Your task to perform on an android device: show emergency info Image 0: 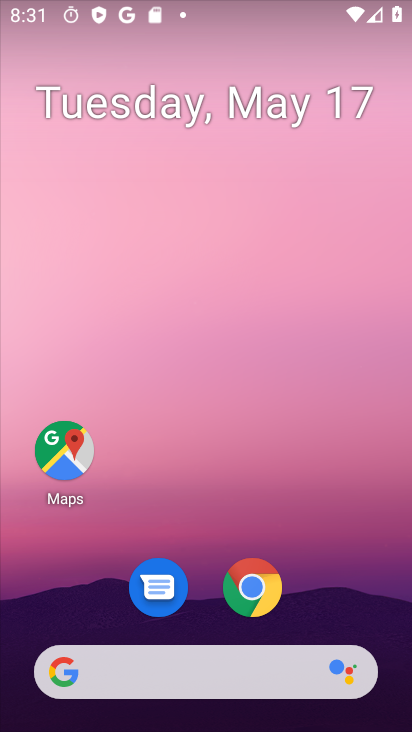
Step 0: drag from (301, 676) to (190, 42)
Your task to perform on an android device: show emergency info Image 1: 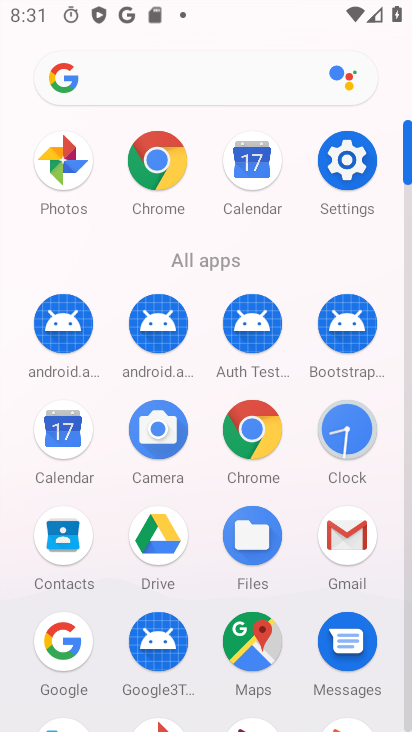
Step 1: click (342, 162)
Your task to perform on an android device: show emergency info Image 2: 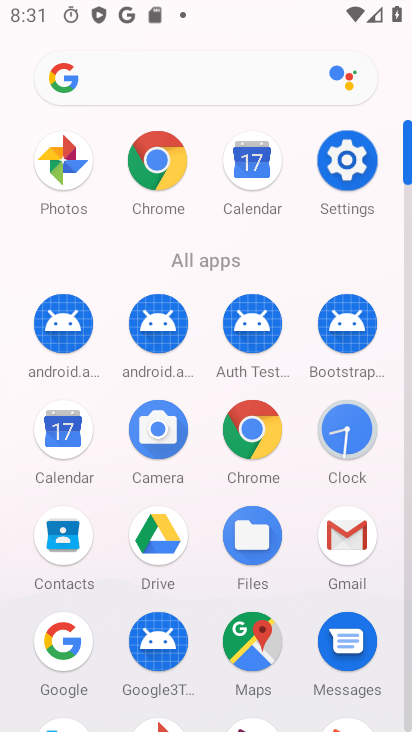
Step 2: click (345, 165)
Your task to perform on an android device: show emergency info Image 3: 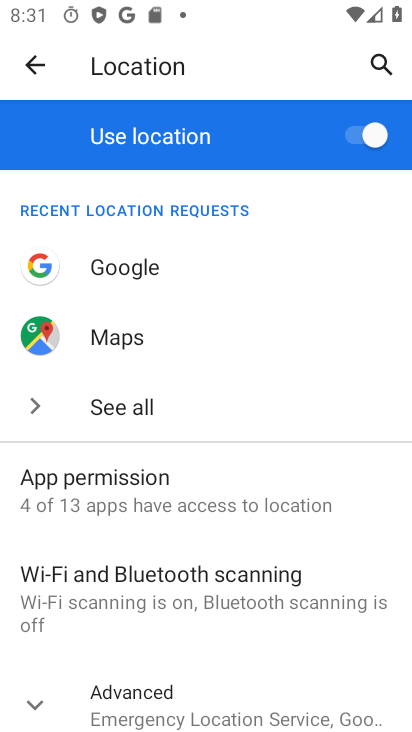
Step 3: click (37, 69)
Your task to perform on an android device: show emergency info Image 4: 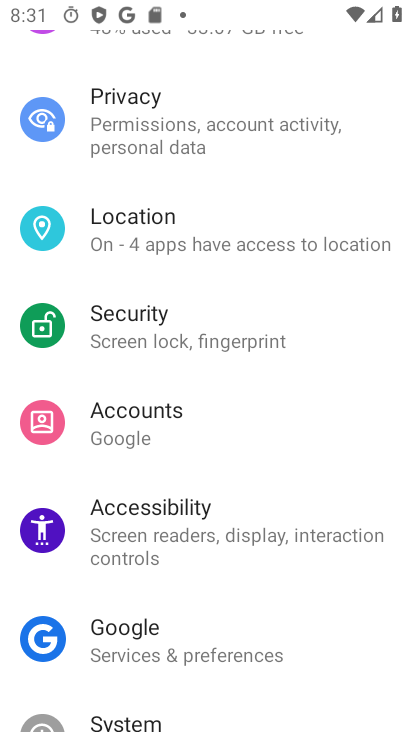
Step 4: drag from (196, 515) to (204, 160)
Your task to perform on an android device: show emergency info Image 5: 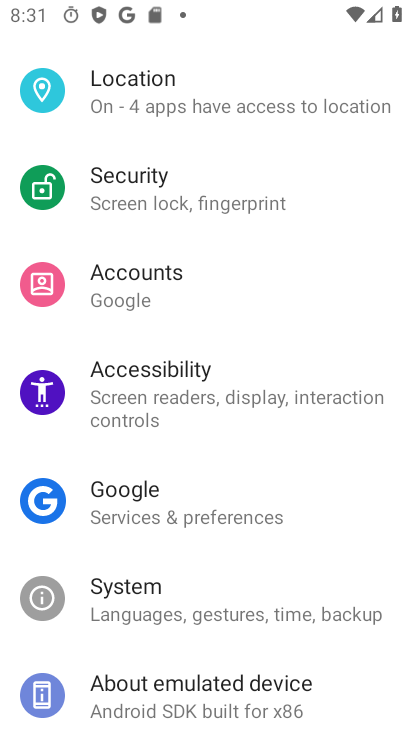
Step 5: click (174, 684)
Your task to perform on an android device: show emergency info Image 6: 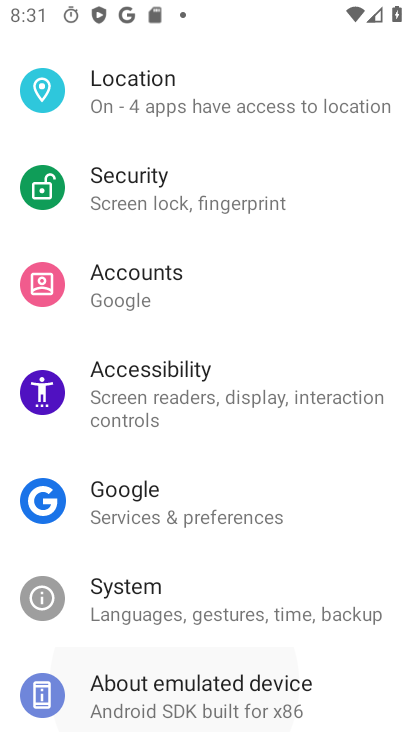
Step 6: click (183, 680)
Your task to perform on an android device: show emergency info Image 7: 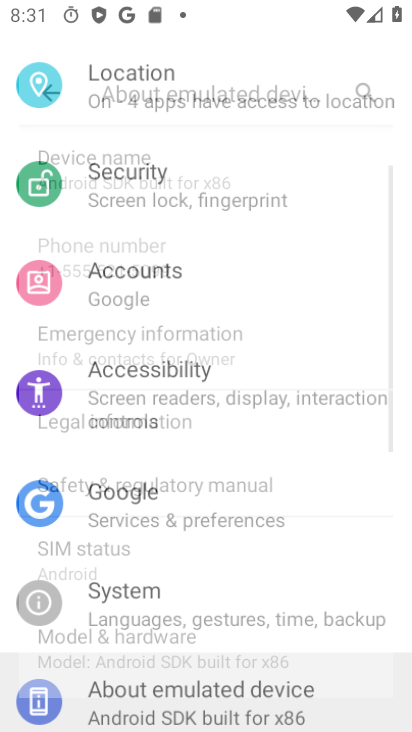
Step 7: click (184, 680)
Your task to perform on an android device: show emergency info Image 8: 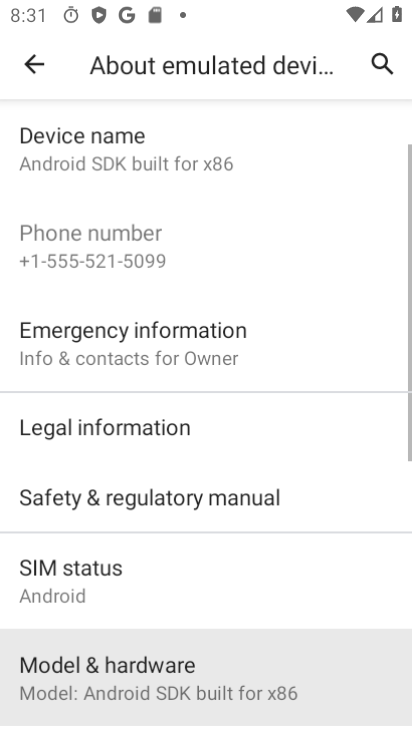
Step 8: click (187, 694)
Your task to perform on an android device: show emergency info Image 9: 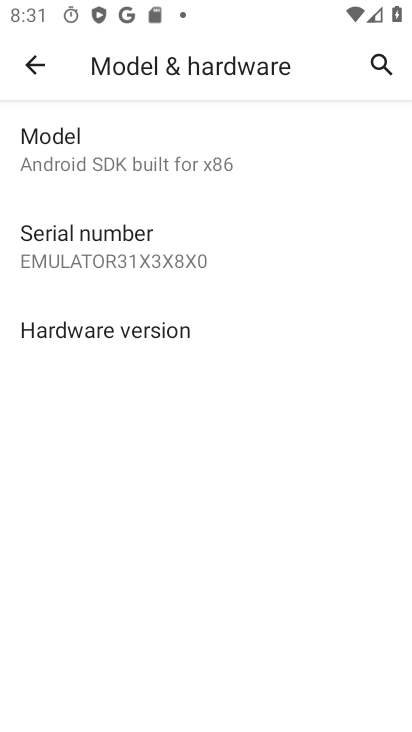
Step 9: click (34, 68)
Your task to perform on an android device: show emergency info Image 10: 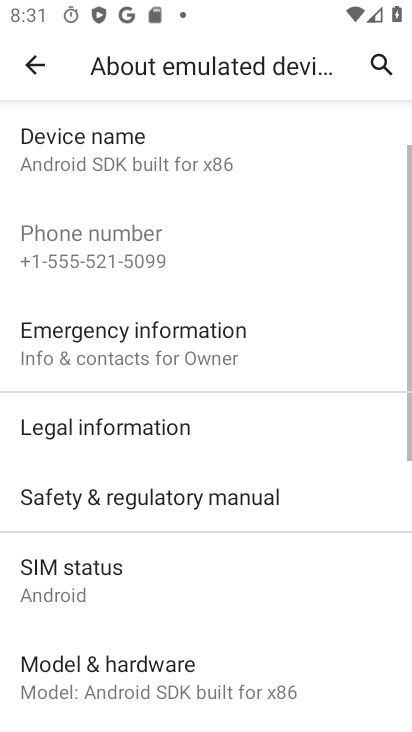
Step 10: click (106, 358)
Your task to perform on an android device: show emergency info Image 11: 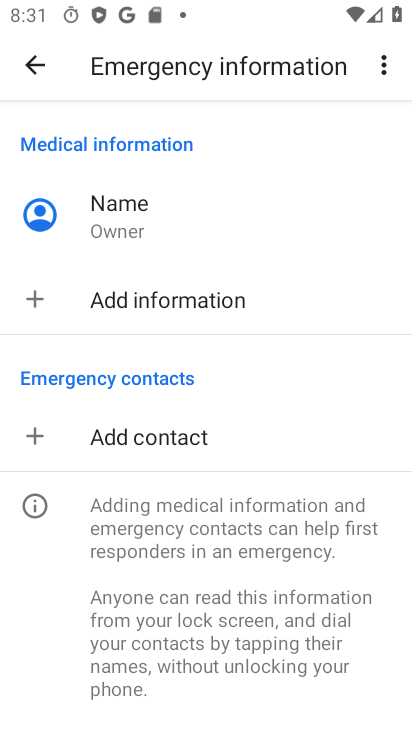
Step 11: task complete